Your task to perform on an android device: turn notification dots on Image 0: 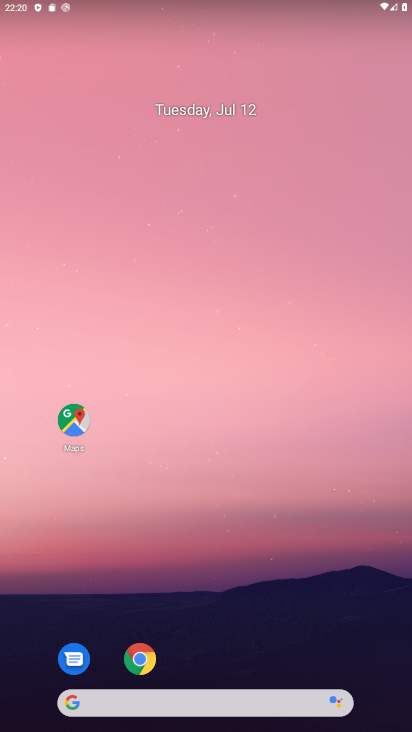
Step 0: drag from (188, 634) to (200, 294)
Your task to perform on an android device: turn notification dots on Image 1: 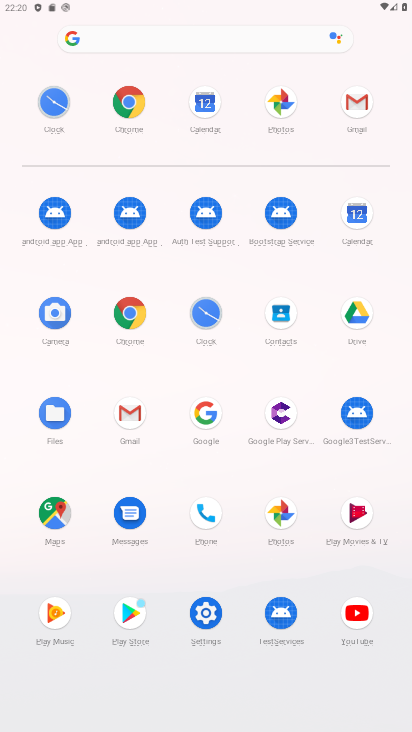
Step 1: click (224, 619)
Your task to perform on an android device: turn notification dots on Image 2: 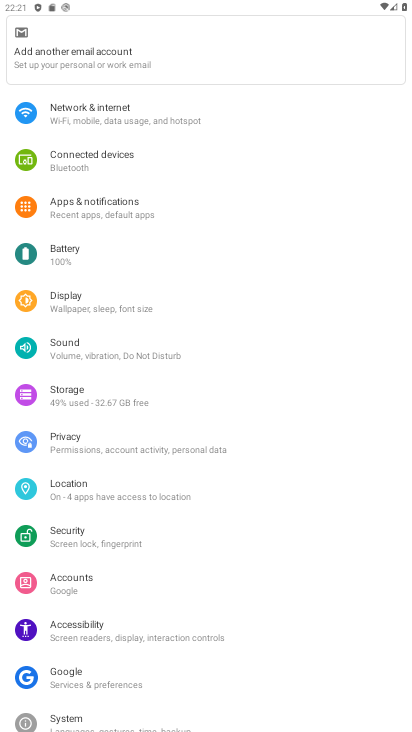
Step 2: drag from (171, 108) to (172, 433)
Your task to perform on an android device: turn notification dots on Image 3: 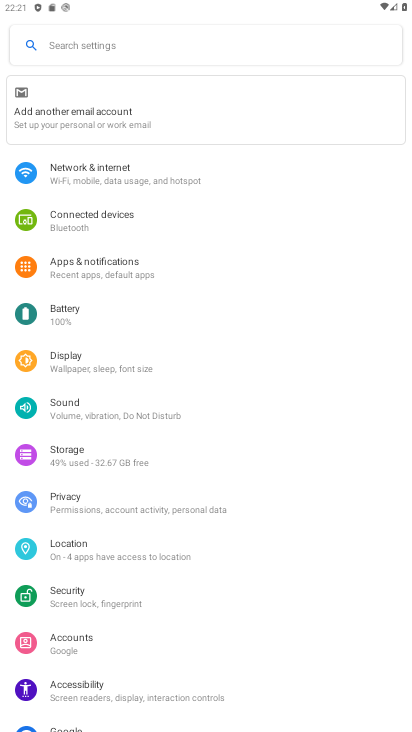
Step 3: click (170, 27)
Your task to perform on an android device: turn notification dots on Image 4: 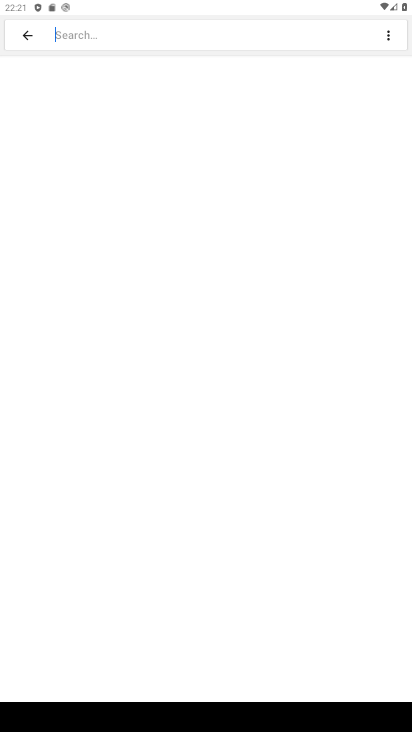
Step 4: type "notification dots "
Your task to perform on an android device: turn notification dots on Image 5: 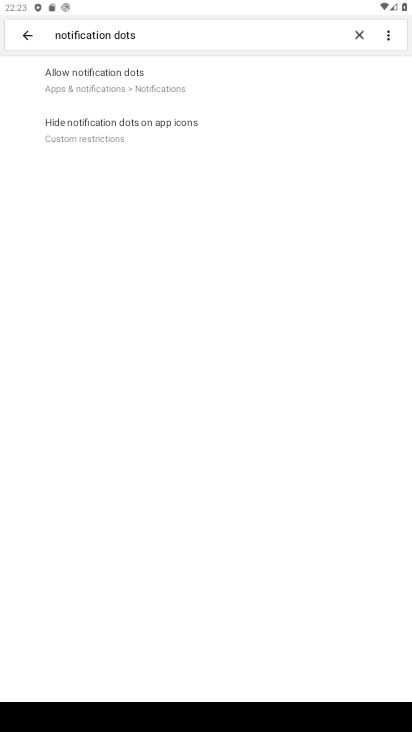
Step 5: click (198, 69)
Your task to perform on an android device: turn notification dots on Image 6: 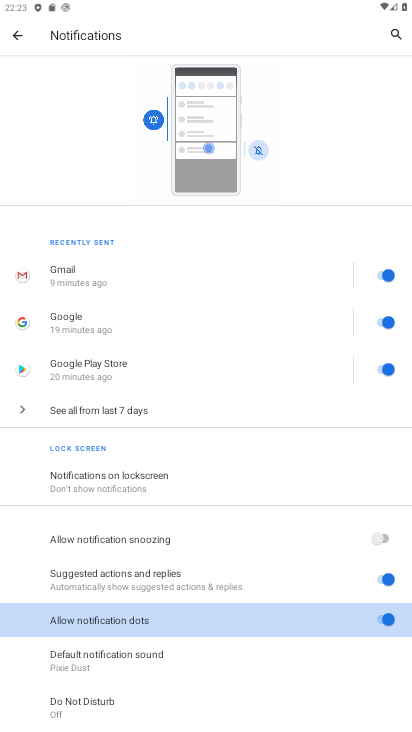
Step 6: task complete